Your task to perform on an android device: open sync settings in chrome Image 0: 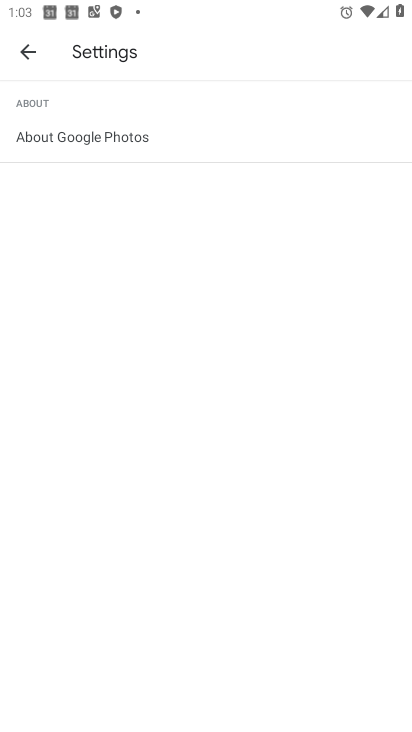
Step 0: press home button
Your task to perform on an android device: open sync settings in chrome Image 1: 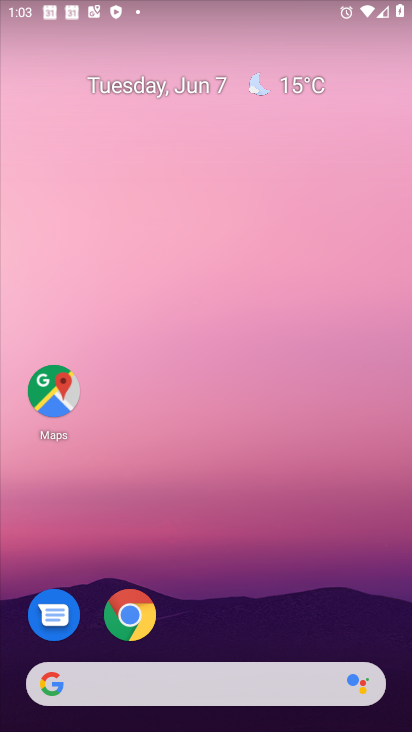
Step 1: click (132, 628)
Your task to perform on an android device: open sync settings in chrome Image 2: 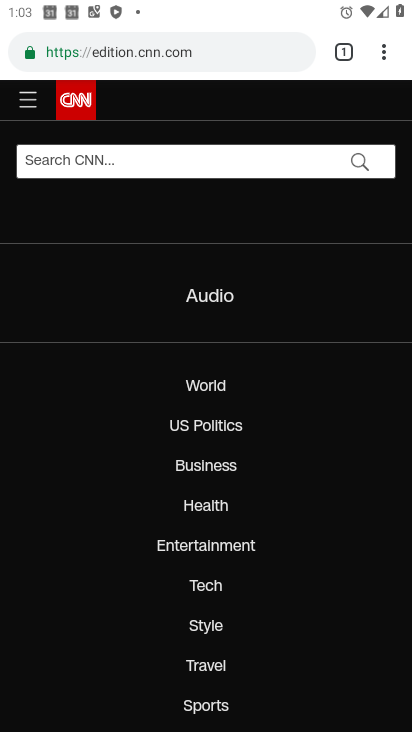
Step 2: click (386, 56)
Your task to perform on an android device: open sync settings in chrome Image 3: 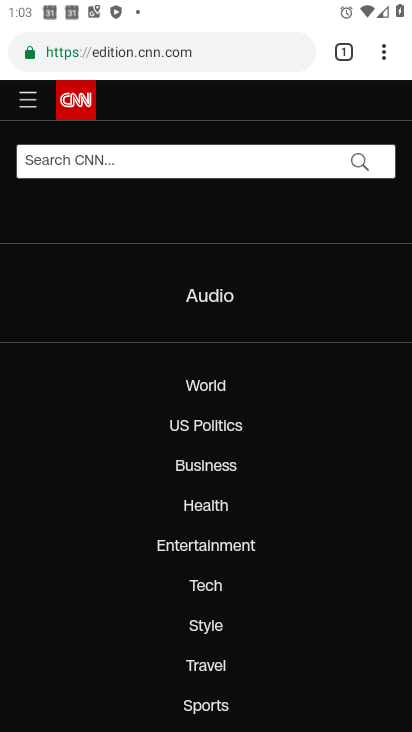
Step 3: click (386, 51)
Your task to perform on an android device: open sync settings in chrome Image 4: 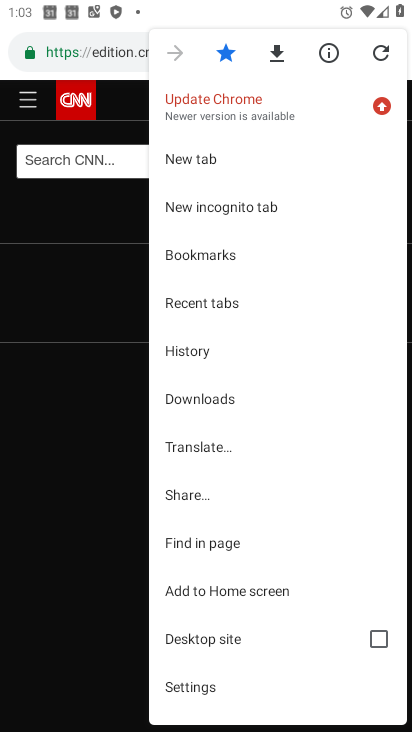
Step 4: click (197, 682)
Your task to perform on an android device: open sync settings in chrome Image 5: 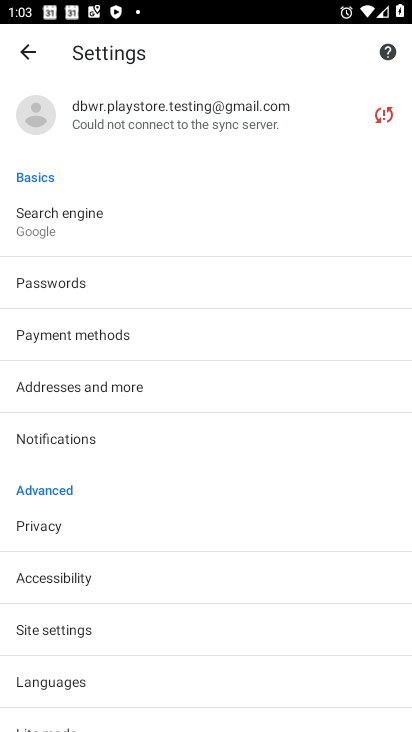
Step 5: click (160, 123)
Your task to perform on an android device: open sync settings in chrome Image 6: 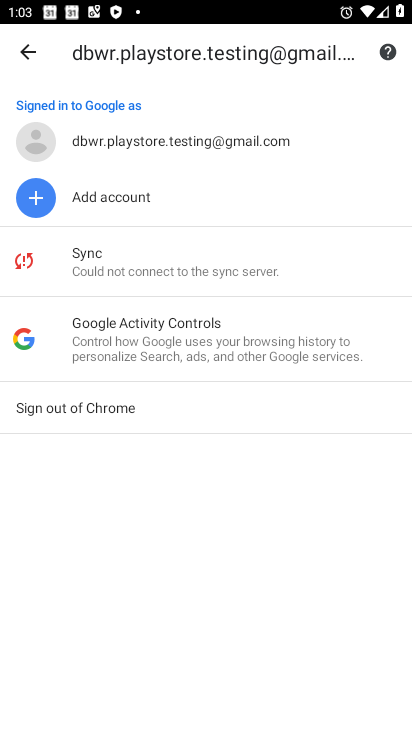
Step 6: click (147, 268)
Your task to perform on an android device: open sync settings in chrome Image 7: 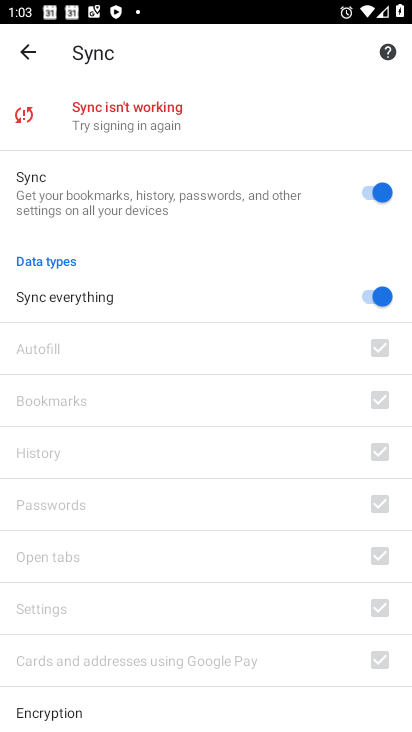
Step 7: task complete